Your task to perform on an android device: What is the recent news? Image 0: 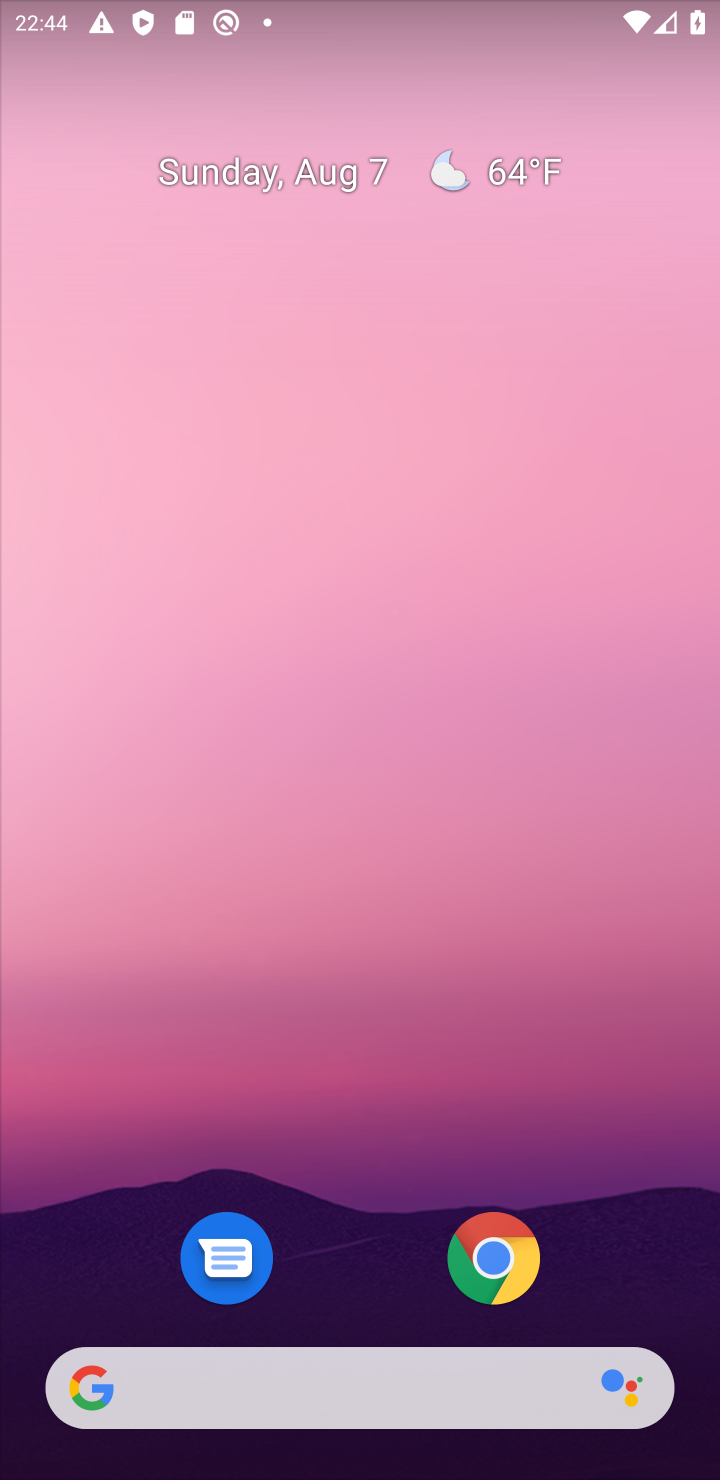
Step 0: drag from (347, 1265) to (404, 0)
Your task to perform on an android device: What is the recent news? Image 1: 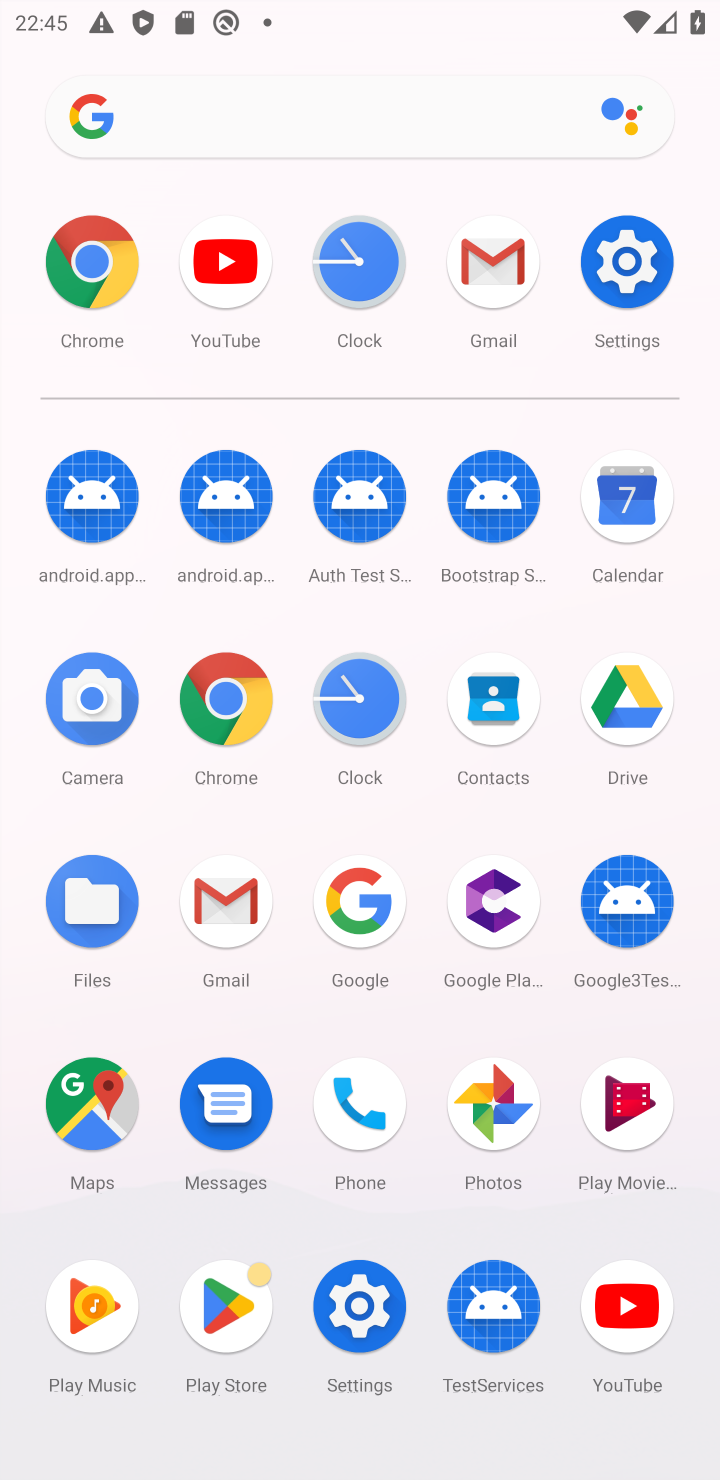
Step 1: click (103, 251)
Your task to perform on an android device: What is the recent news? Image 2: 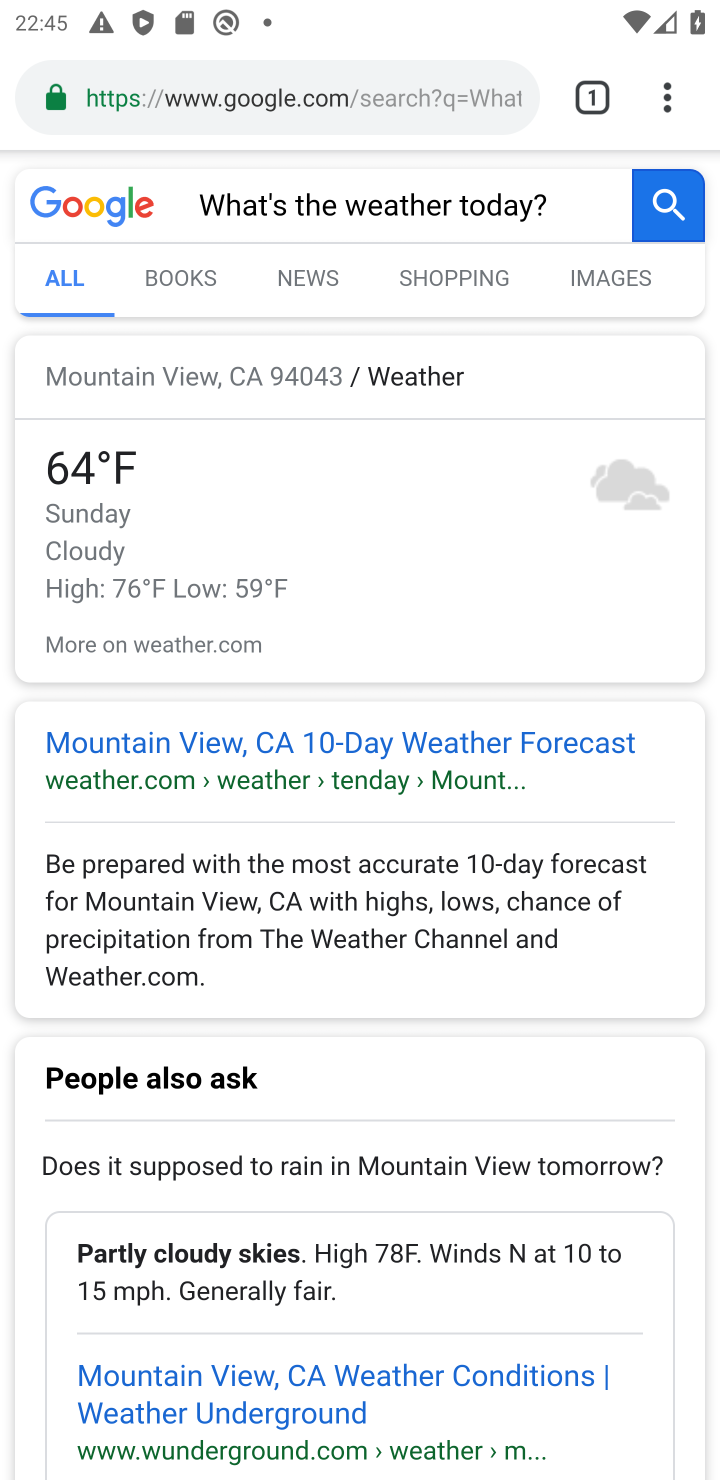
Step 2: click (391, 82)
Your task to perform on an android device: What is the recent news? Image 3: 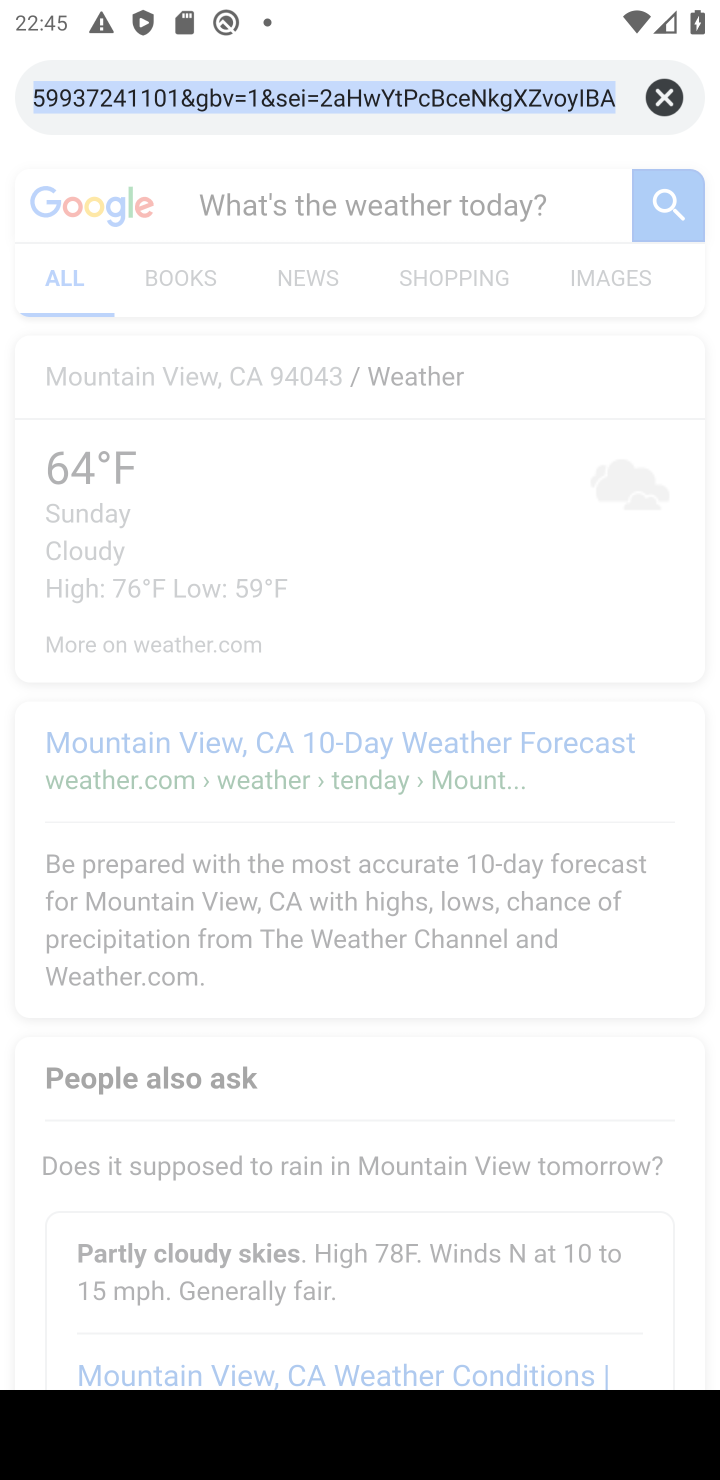
Step 3: type "What is the recent news?"
Your task to perform on an android device: What is the recent news? Image 4: 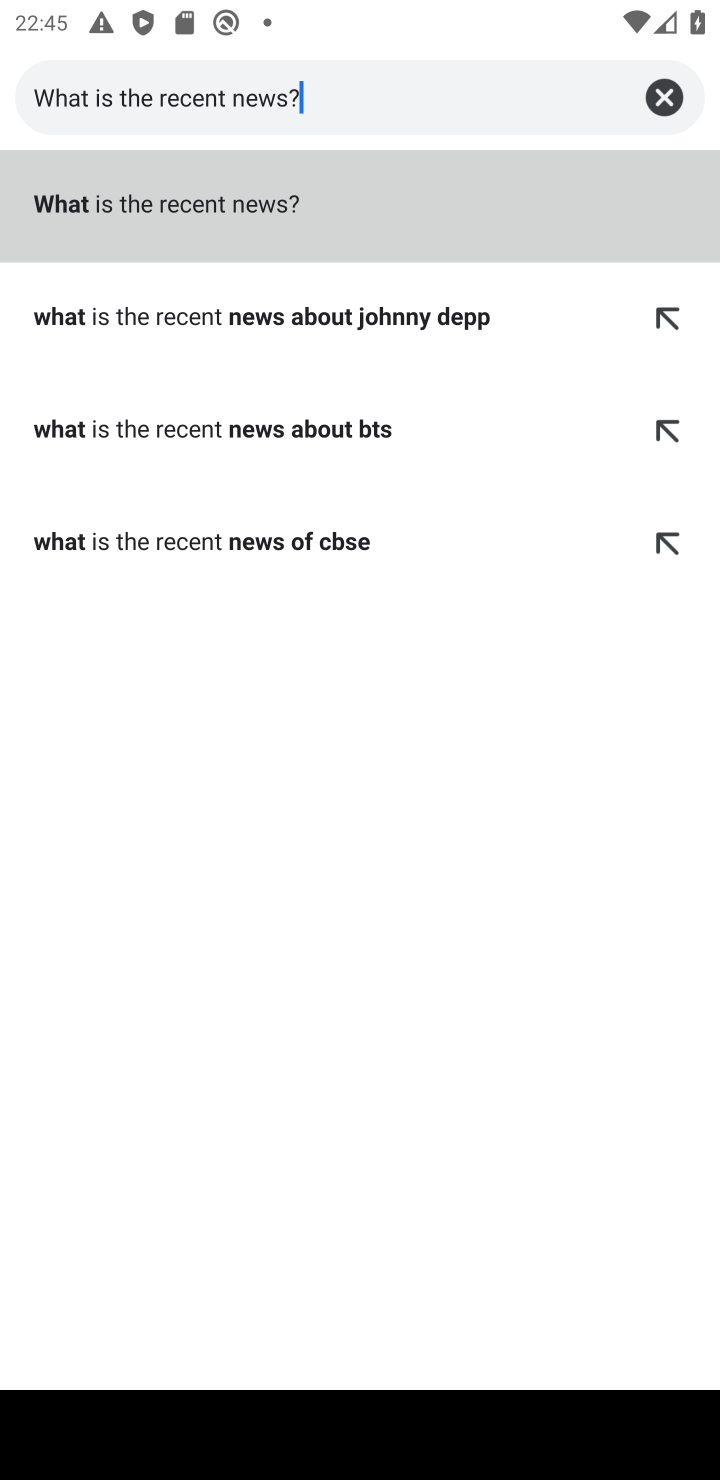
Step 4: type ""
Your task to perform on an android device: What is the recent news? Image 5: 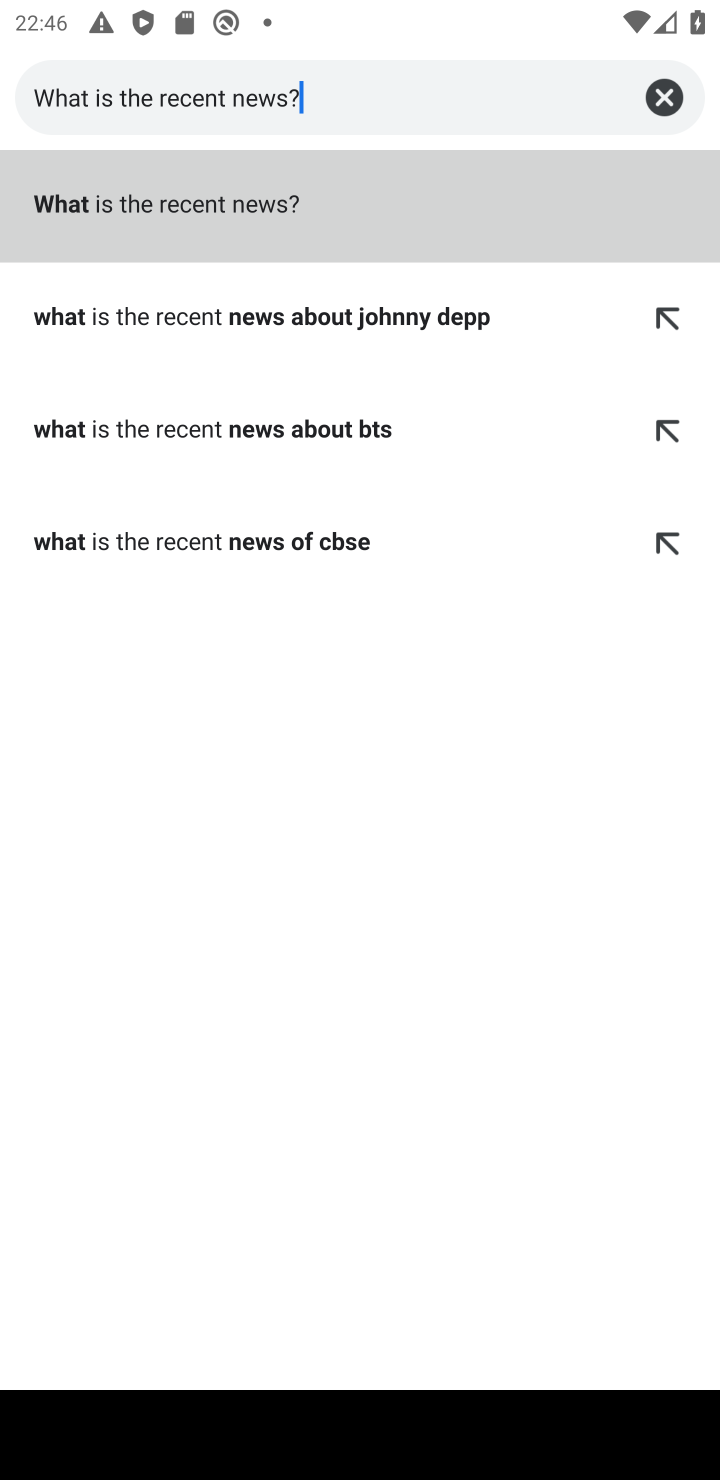
Step 5: click (147, 181)
Your task to perform on an android device: What is the recent news? Image 6: 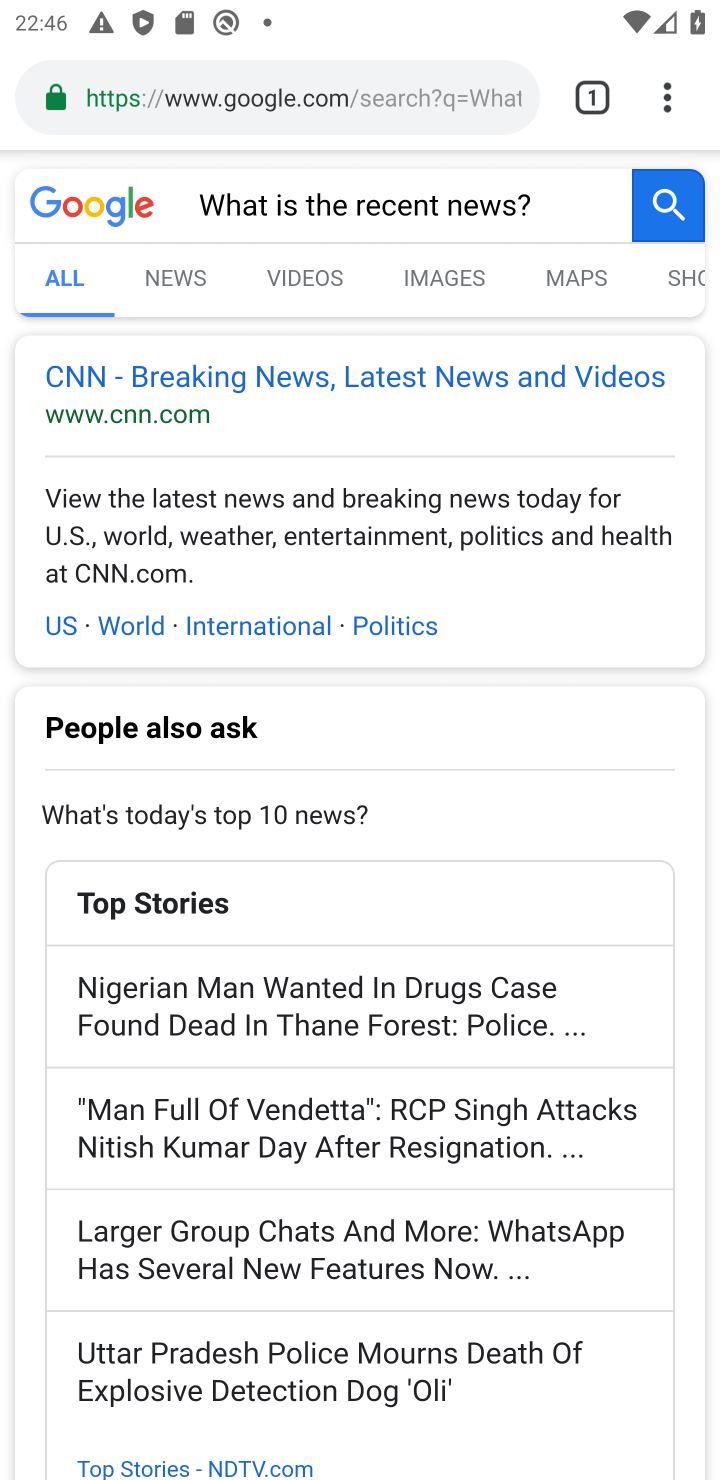
Step 6: task complete